Your task to perform on an android device: visit the assistant section in the google photos Image 0: 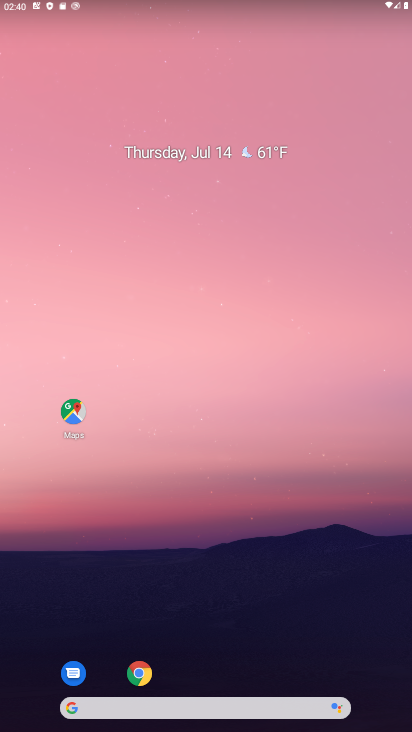
Step 0: click (81, 392)
Your task to perform on an android device: visit the assistant section in the google photos Image 1: 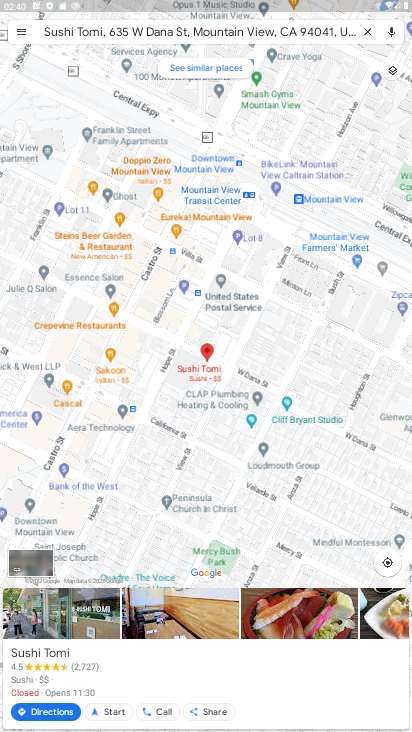
Step 1: press home button
Your task to perform on an android device: visit the assistant section in the google photos Image 2: 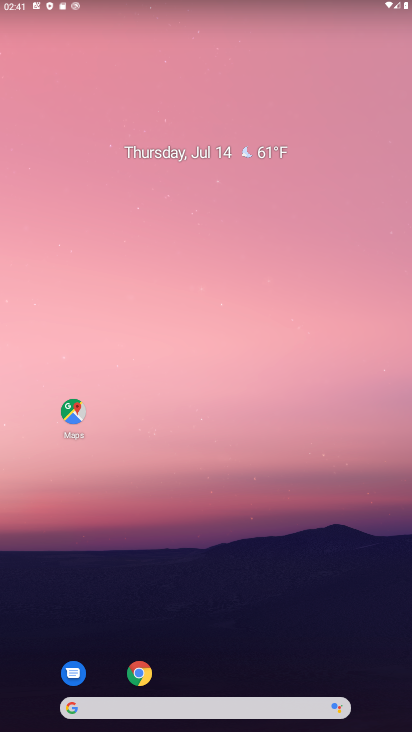
Step 2: drag from (250, 641) to (209, 54)
Your task to perform on an android device: visit the assistant section in the google photos Image 3: 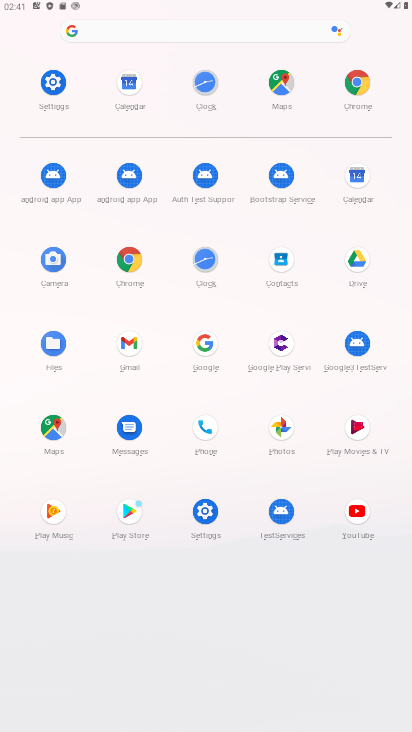
Step 3: click (267, 438)
Your task to perform on an android device: visit the assistant section in the google photos Image 4: 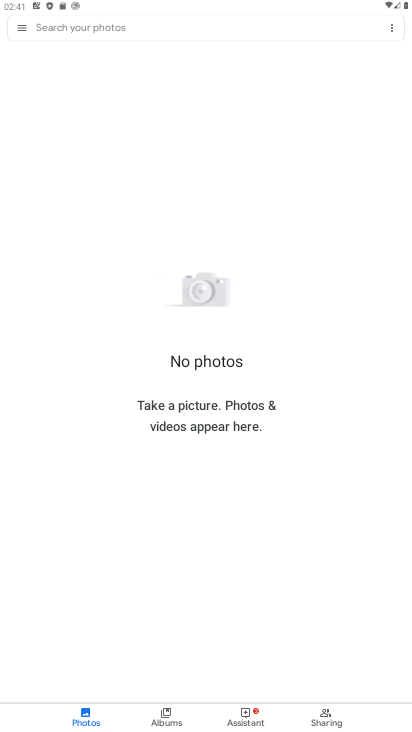
Step 4: click (245, 717)
Your task to perform on an android device: visit the assistant section in the google photos Image 5: 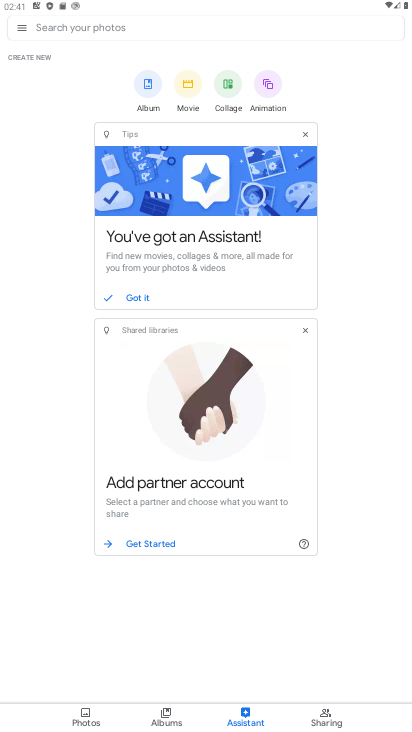
Step 5: task complete